Your task to perform on an android device: change notification settings in the gmail app Image 0: 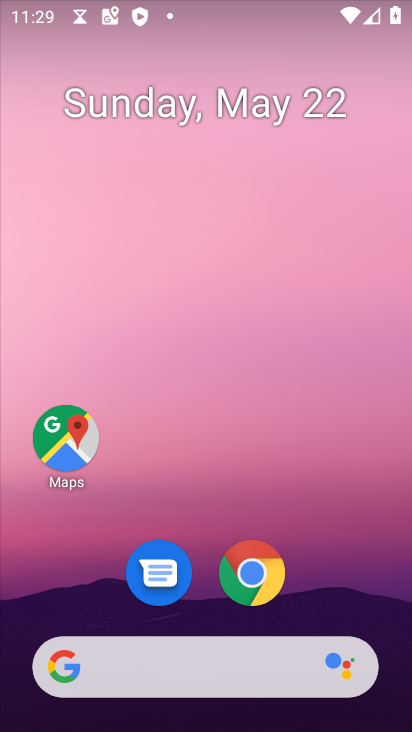
Step 0: press home button
Your task to perform on an android device: change notification settings in the gmail app Image 1: 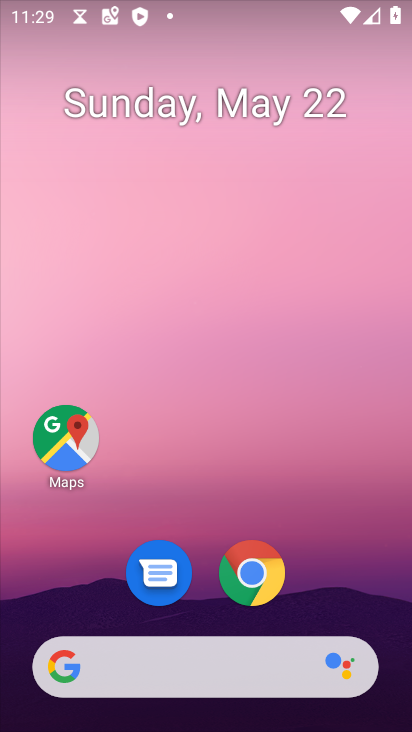
Step 1: drag from (163, 662) to (294, 141)
Your task to perform on an android device: change notification settings in the gmail app Image 2: 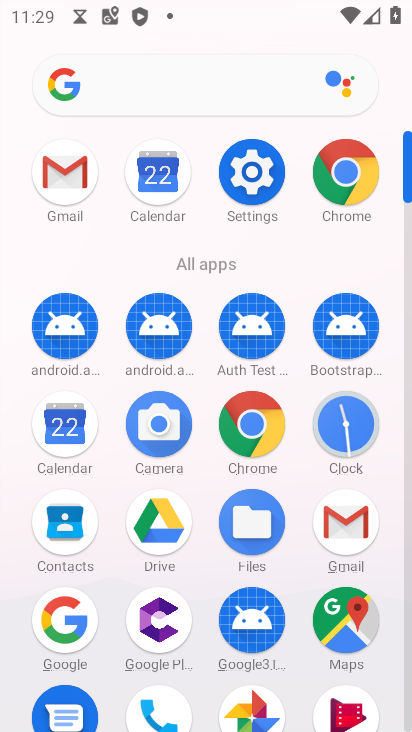
Step 2: click (79, 174)
Your task to perform on an android device: change notification settings in the gmail app Image 3: 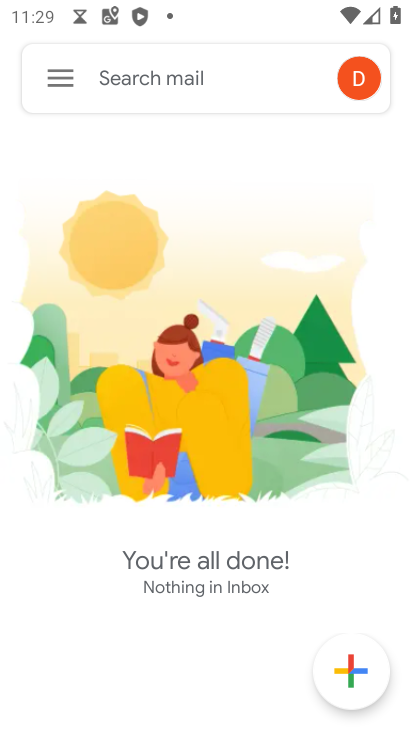
Step 3: click (60, 78)
Your task to perform on an android device: change notification settings in the gmail app Image 4: 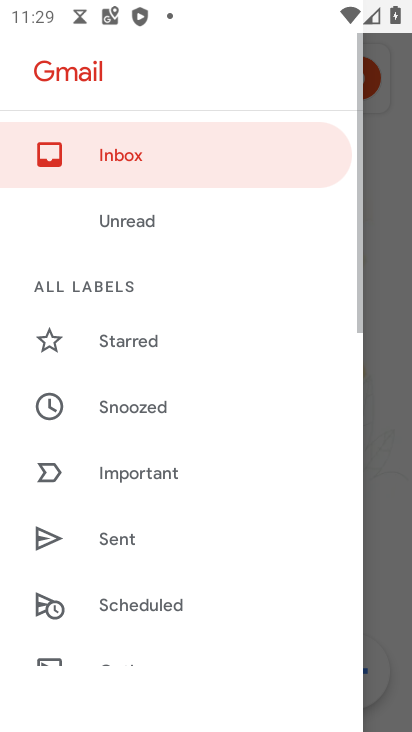
Step 4: drag from (205, 625) to (253, 106)
Your task to perform on an android device: change notification settings in the gmail app Image 5: 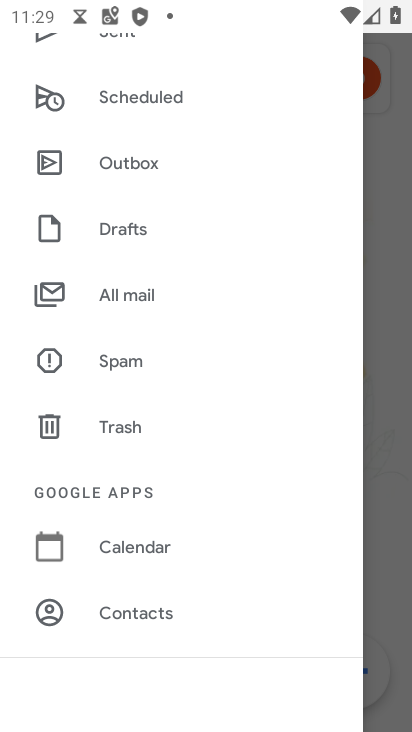
Step 5: drag from (207, 585) to (275, 285)
Your task to perform on an android device: change notification settings in the gmail app Image 6: 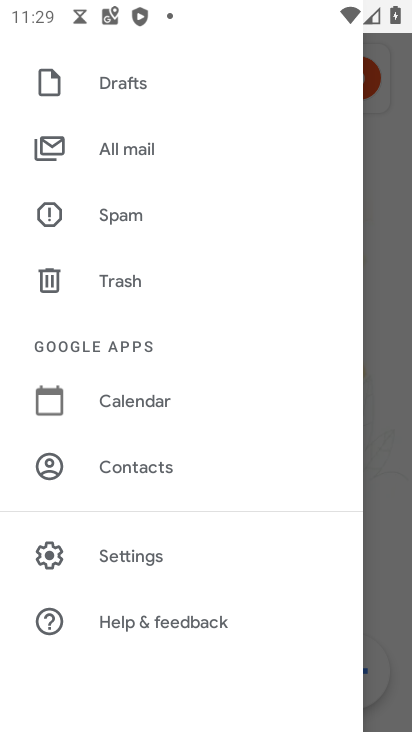
Step 6: click (139, 563)
Your task to perform on an android device: change notification settings in the gmail app Image 7: 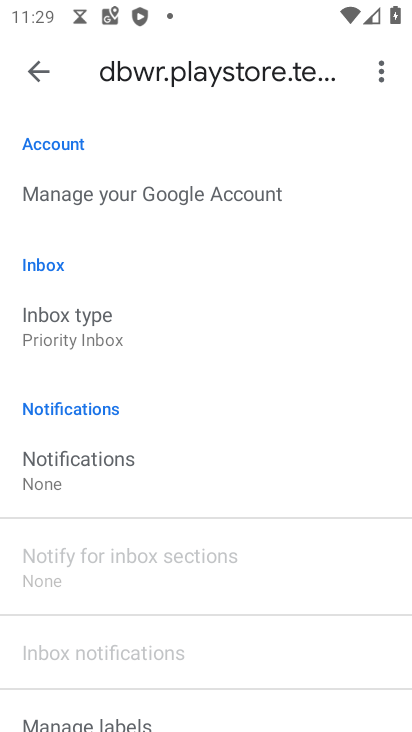
Step 7: click (100, 471)
Your task to perform on an android device: change notification settings in the gmail app Image 8: 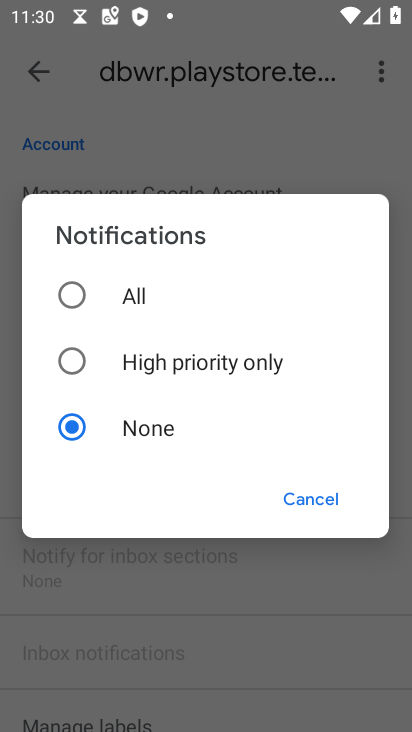
Step 8: click (75, 293)
Your task to perform on an android device: change notification settings in the gmail app Image 9: 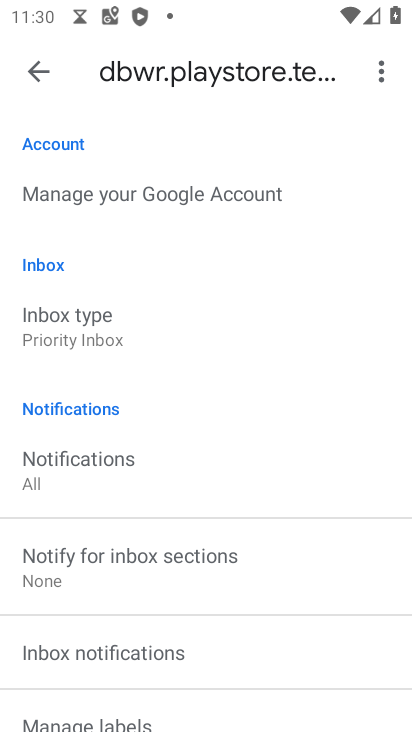
Step 9: task complete